Your task to perform on an android device: Open the calendar and show me this week's events? Image 0: 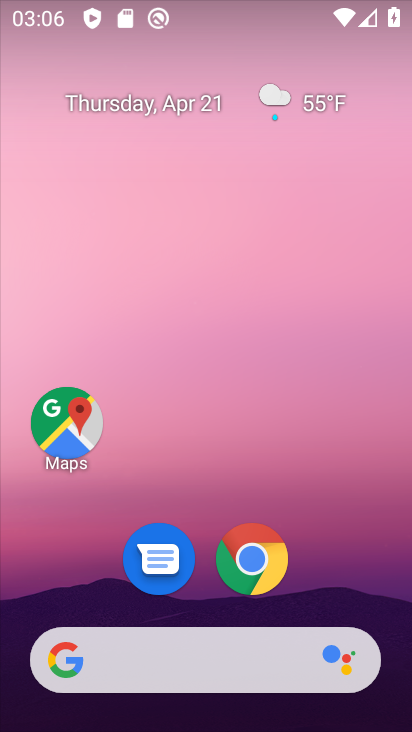
Step 0: drag from (364, 571) to (323, 35)
Your task to perform on an android device: Open the calendar and show me this week's events? Image 1: 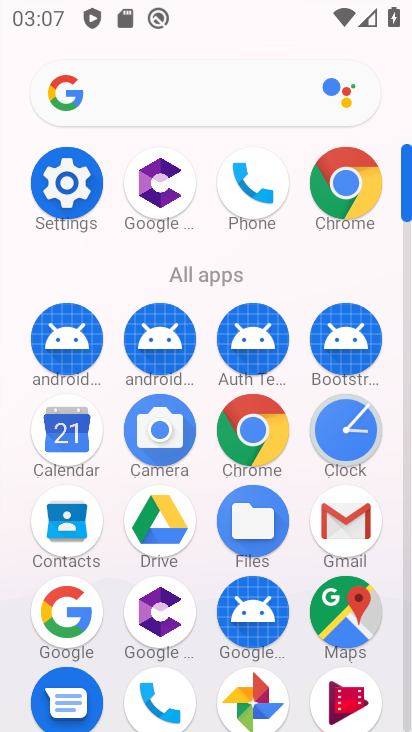
Step 1: click (71, 449)
Your task to perform on an android device: Open the calendar and show me this week's events? Image 2: 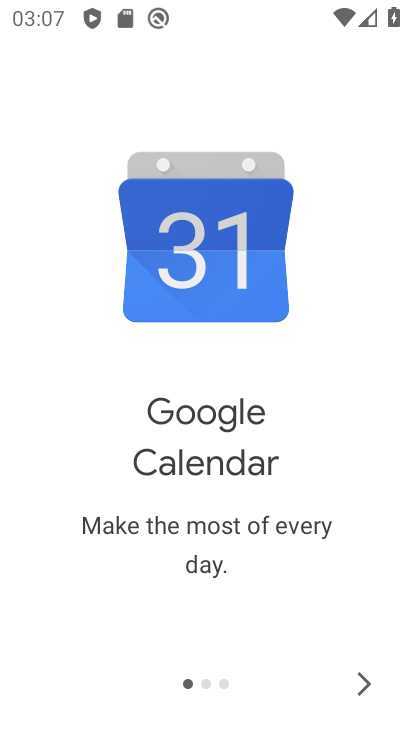
Step 2: click (358, 688)
Your task to perform on an android device: Open the calendar and show me this week's events? Image 3: 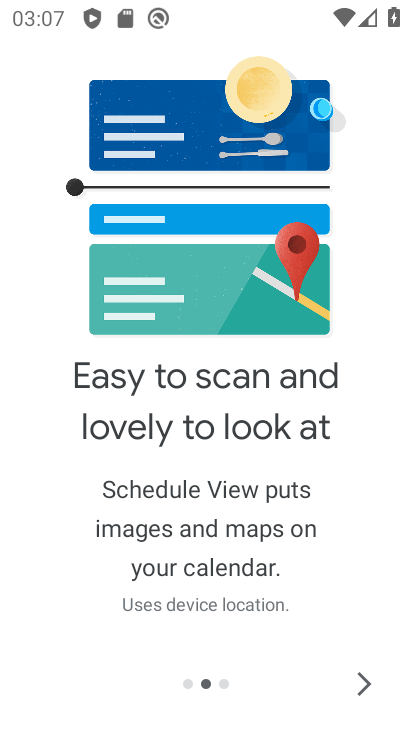
Step 3: click (359, 687)
Your task to perform on an android device: Open the calendar and show me this week's events? Image 4: 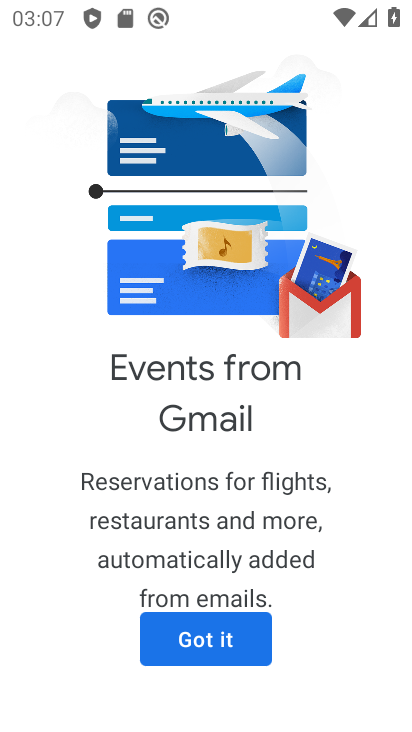
Step 4: click (212, 633)
Your task to perform on an android device: Open the calendar and show me this week's events? Image 5: 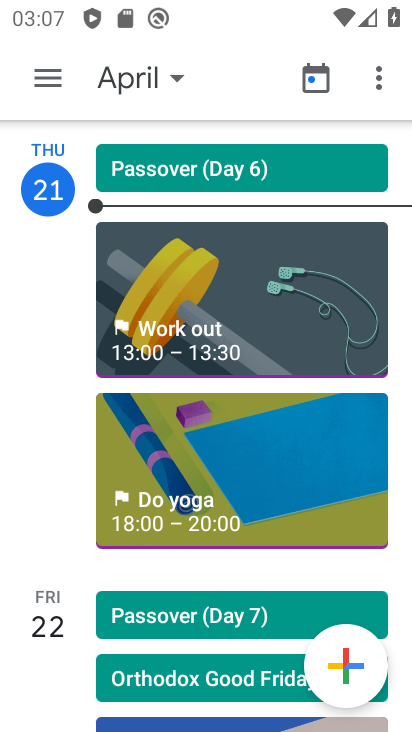
Step 5: click (54, 80)
Your task to perform on an android device: Open the calendar and show me this week's events? Image 6: 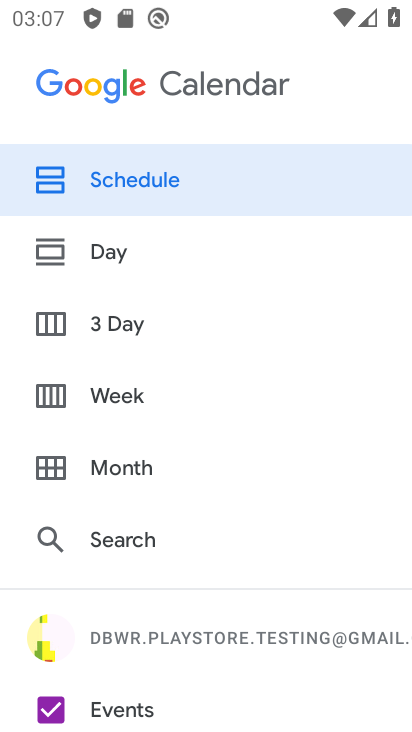
Step 6: click (139, 390)
Your task to perform on an android device: Open the calendar and show me this week's events? Image 7: 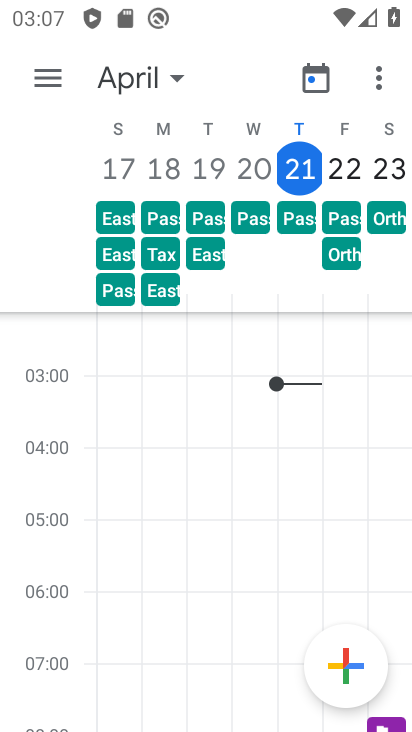
Step 7: task complete